Your task to perform on an android device: uninstall "Duolingo: language lessons" Image 0: 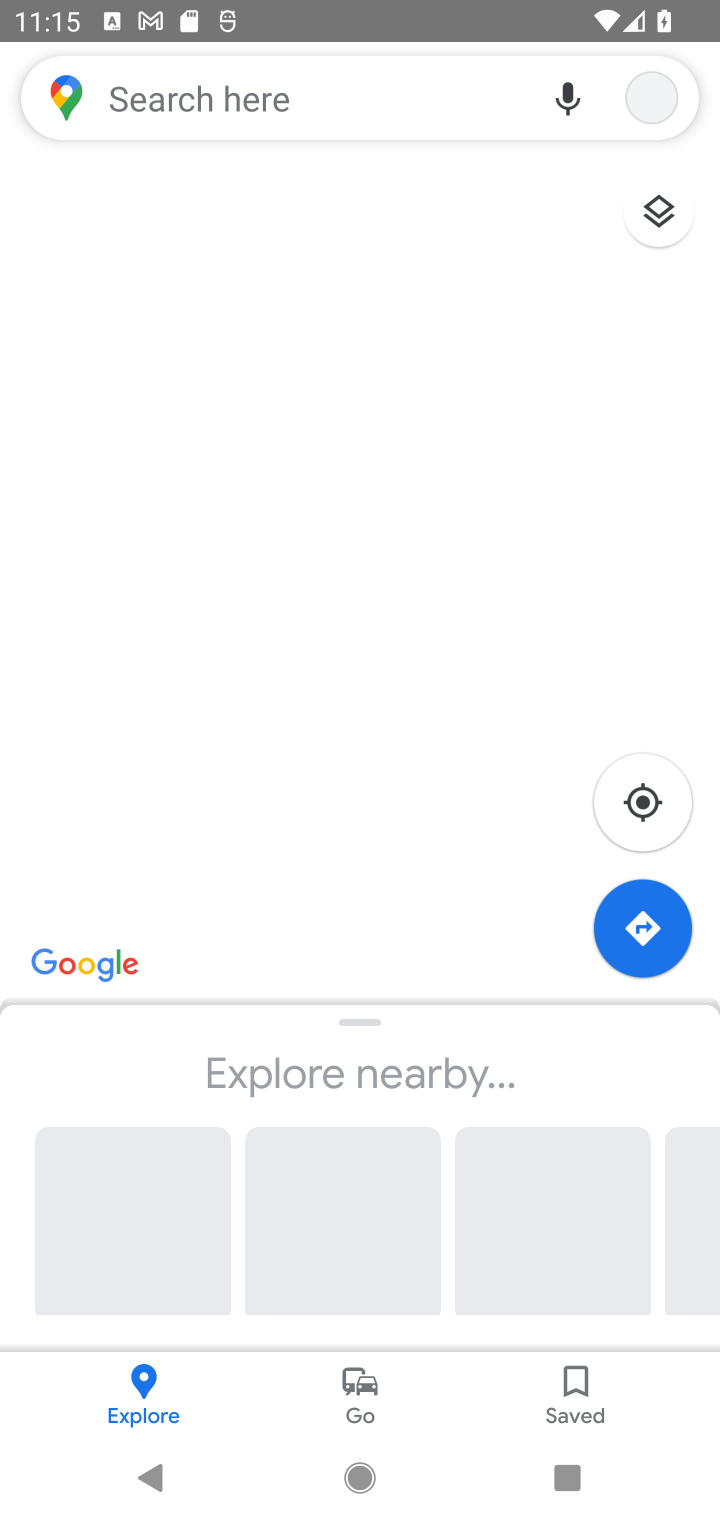
Step 0: press home button
Your task to perform on an android device: uninstall "Duolingo: language lessons" Image 1: 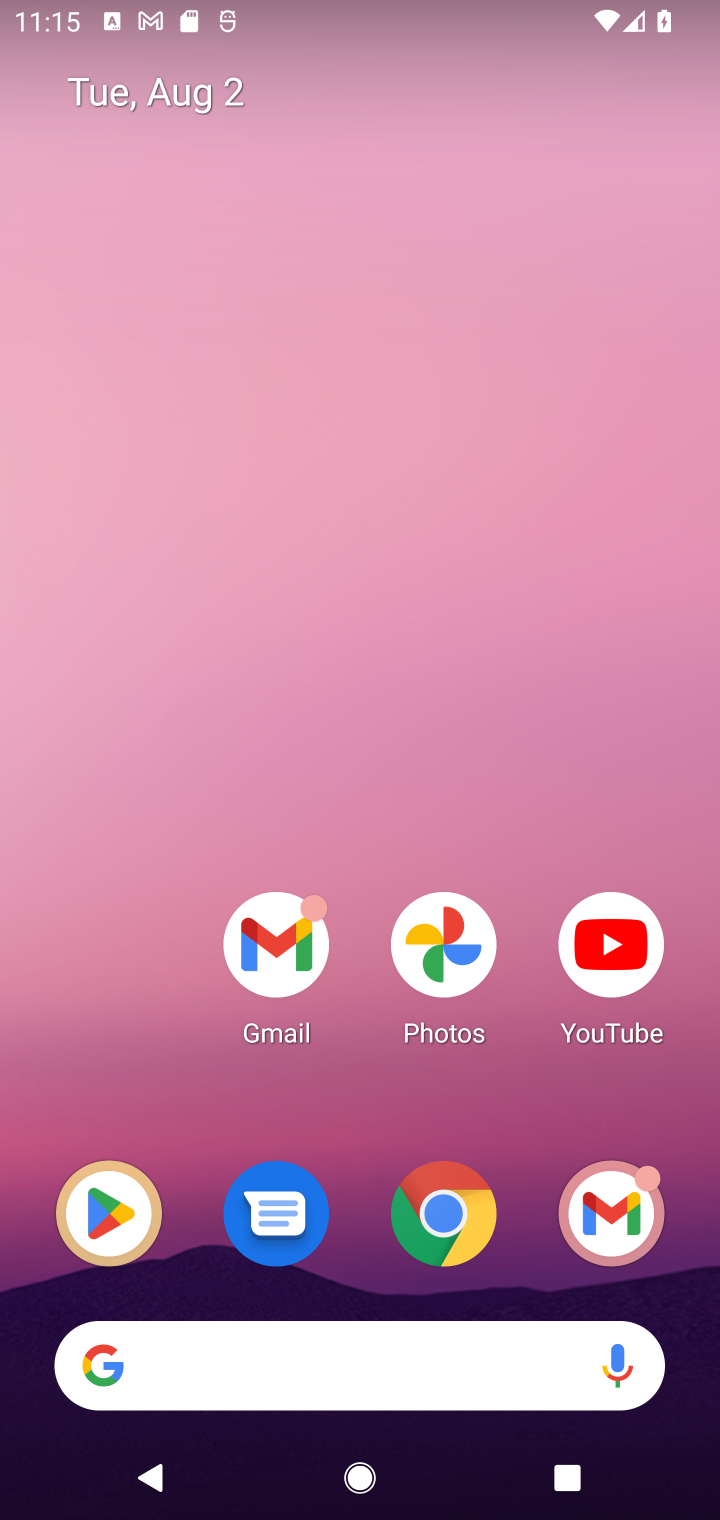
Step 1: click (103, 1186)
Your task to perform on an android device: uninstall "Duolingo: language lessons" Image 2: 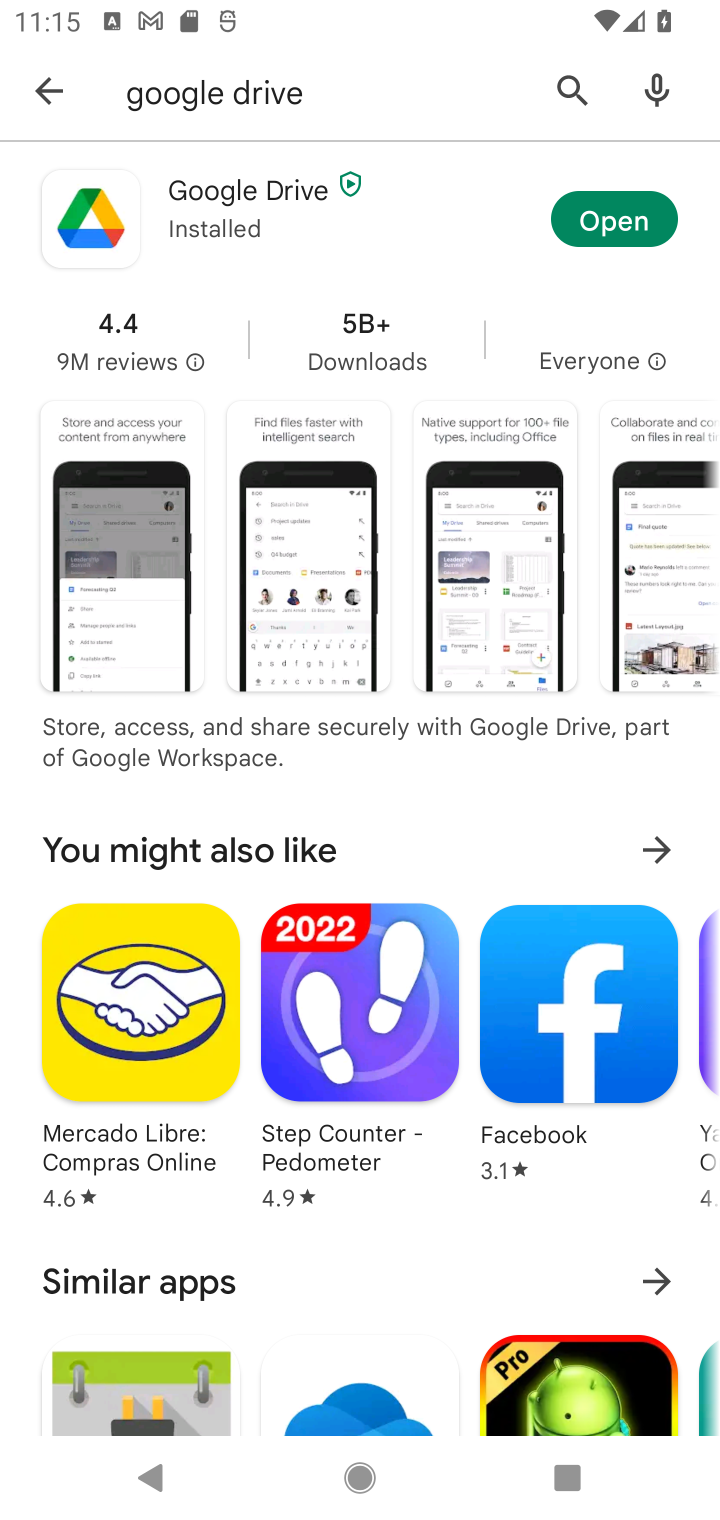
Step 2: click (56, 92)
Your task to perform on an android device: uninstall "Duolingo: language lessons" Image 3: 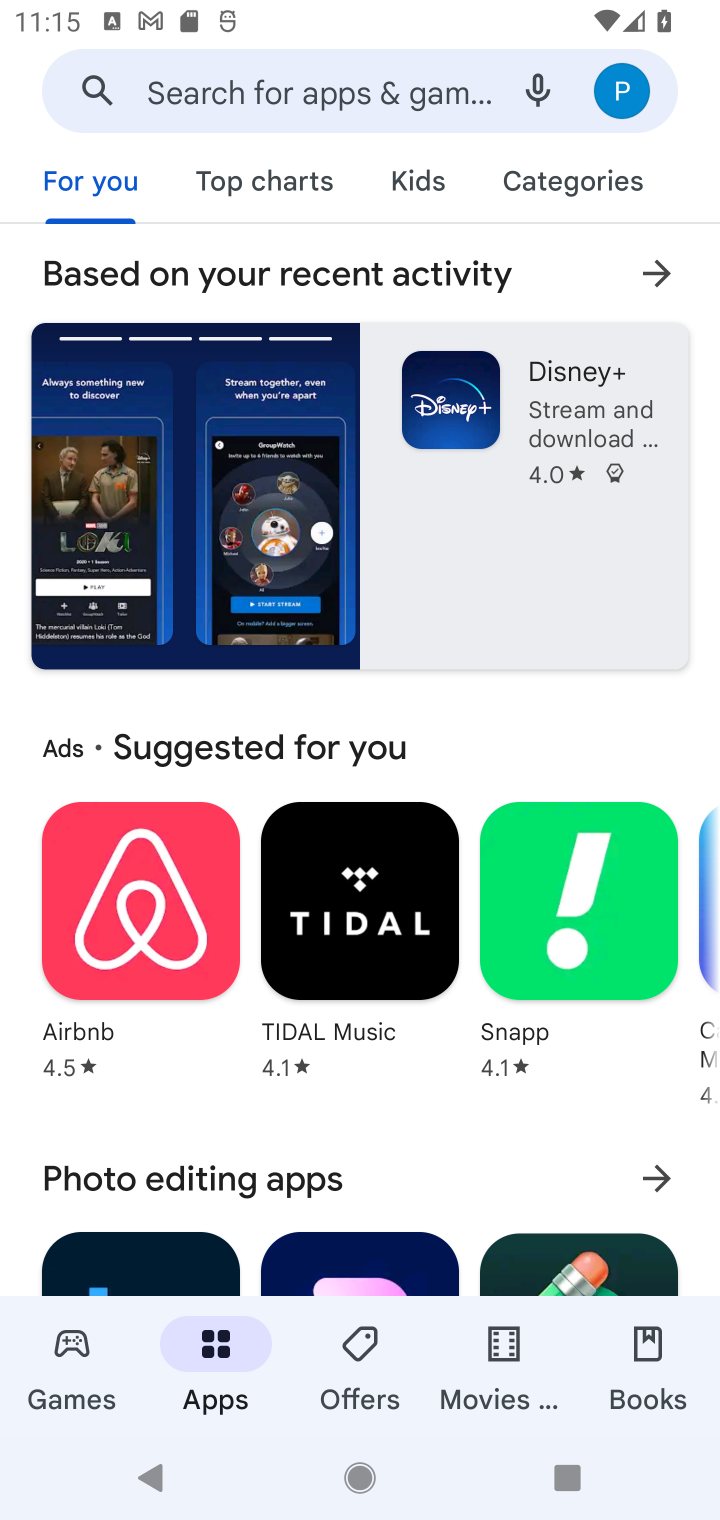
Step 3: click (336, 101)
Your task to perform on an android device: uninstall "Duolingo: language lessons" Image 4: 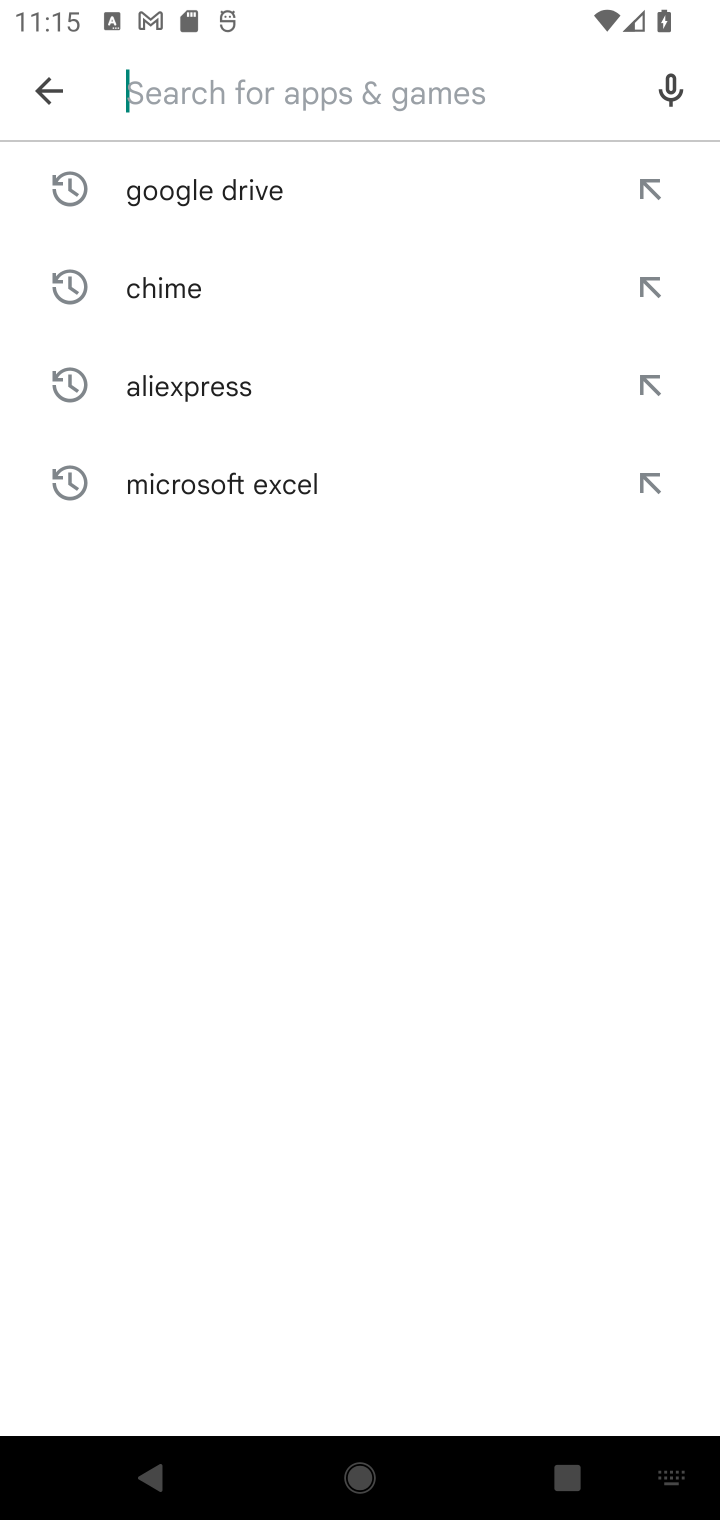
Step 4: type "Duolingo"
Your task to perform on an android device: uninstall "Duolingo: language lessons" Image 5: 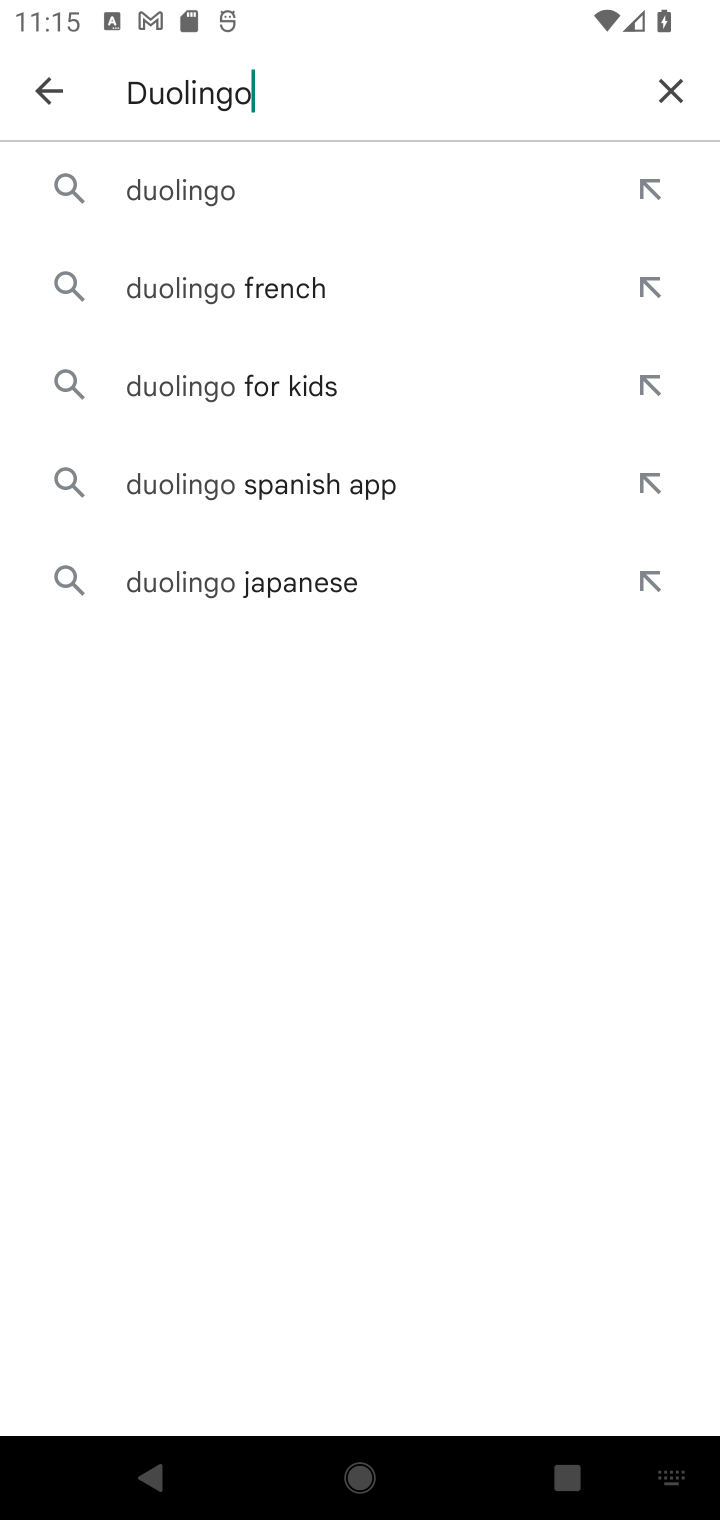
Step 5: click (164, 189)
Your task to perform on an android device: uninstall "Duolingo: language lessons" Image 6: 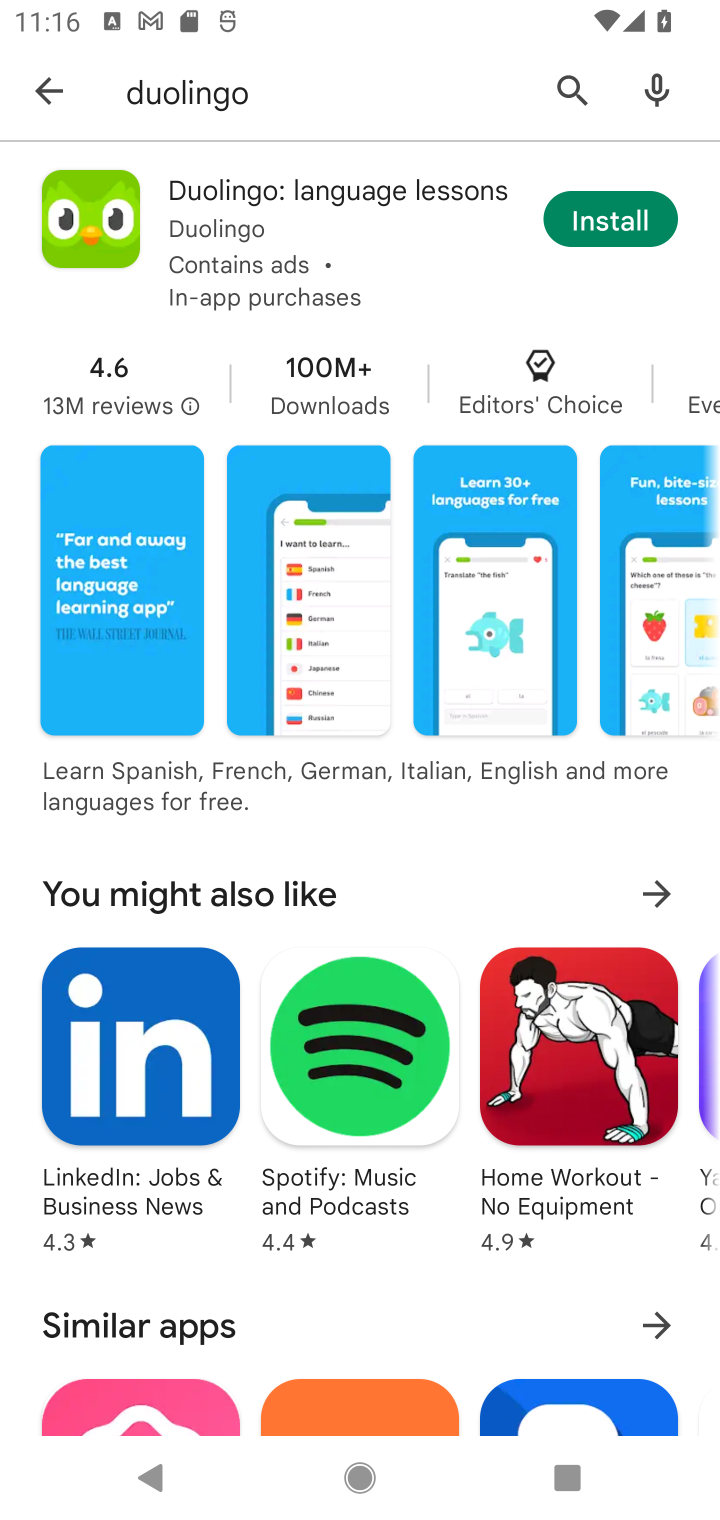
Step 6: task complete